Your task to perform on an android device: check data usage Image 0: 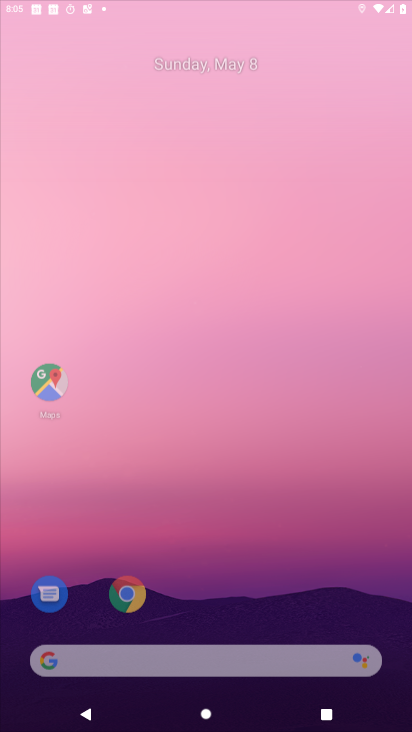
Step 0: click (133, 613)
Your task to perform on an android device: check data usage Image 1: 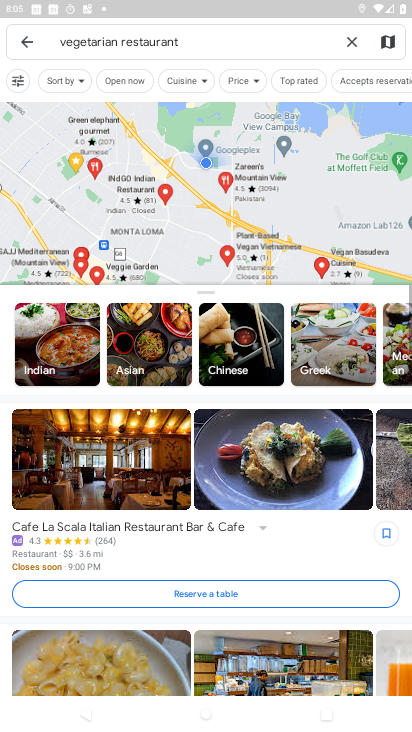
Step 1: click (132, 613)
Your task to perform on an android device: check data usage Image 2: 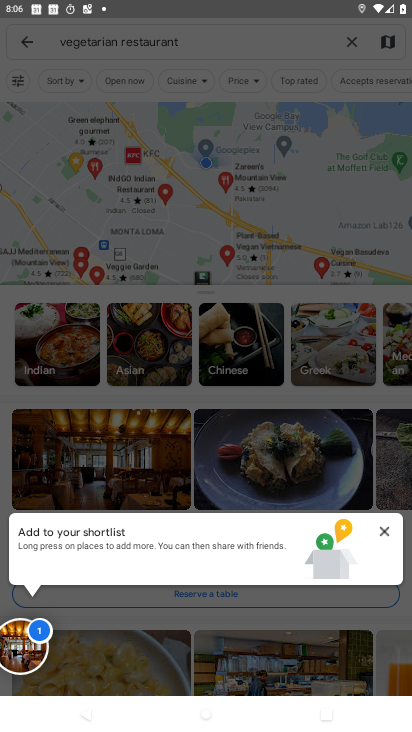
Step 2: press home button
Your task to perform on an android device: check data usage Image 3: 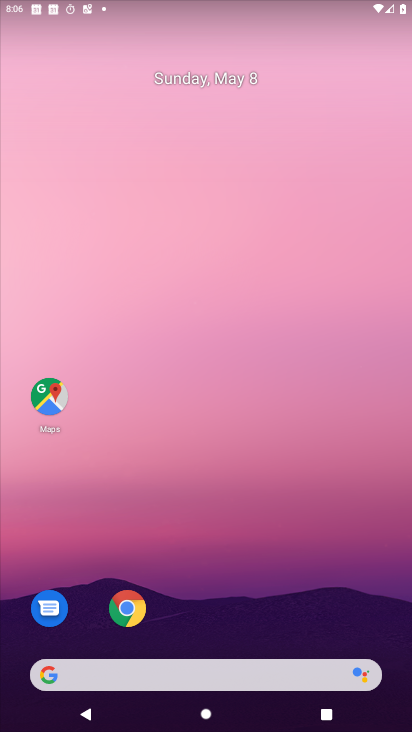
Step 3: drag from (208, 619) to (241, 187)
Your task to perform on an android device: check data usage Image 4: 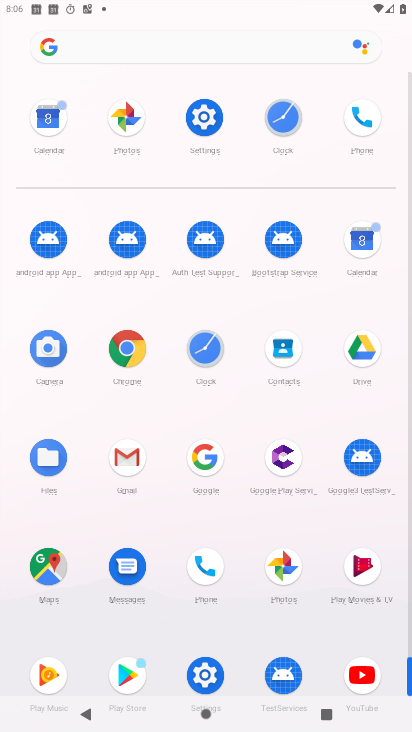
Step 4: click (210, 111)
Your task to perform on an android device: check data usage Image 5: 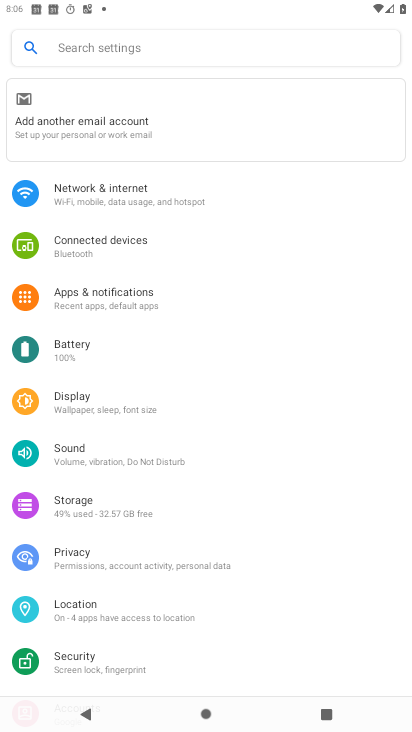
Step 5: click (207, 197)
Your task to perform on an android device: check data usage Image 6: 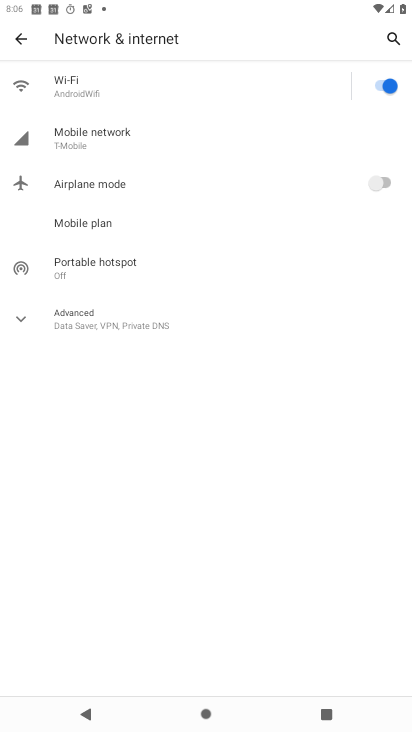
Step 6: click (141, 133)
Your task to perform on an android device: check data usage Image 7: 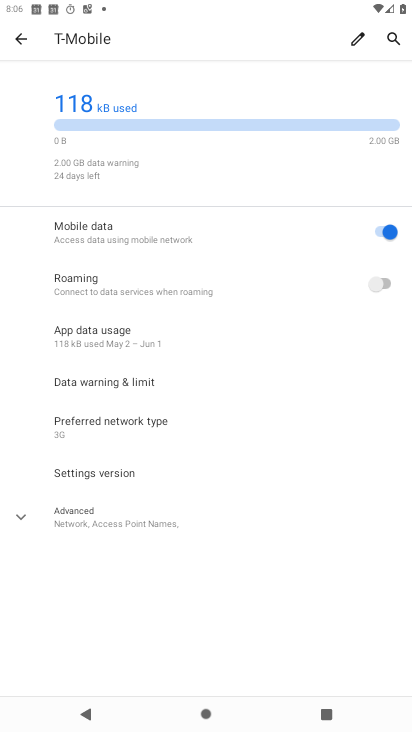
Step 7: click (112, 345)
Your task to perform on an android device: check data usage Image 8: 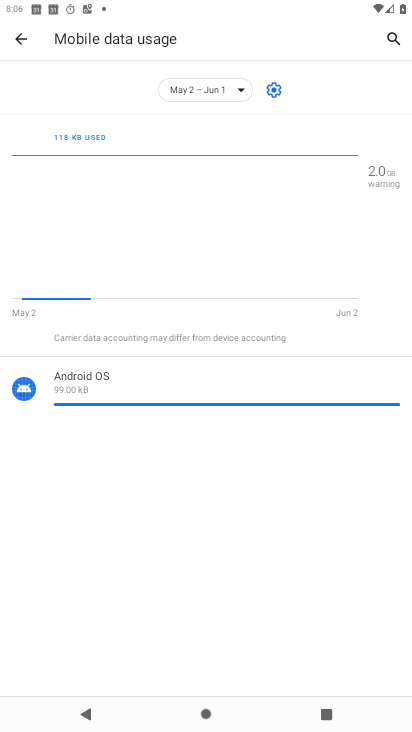
Step 8: task complete